Your task to perform on an android device: turn on data saver in the chrome app Image 0: 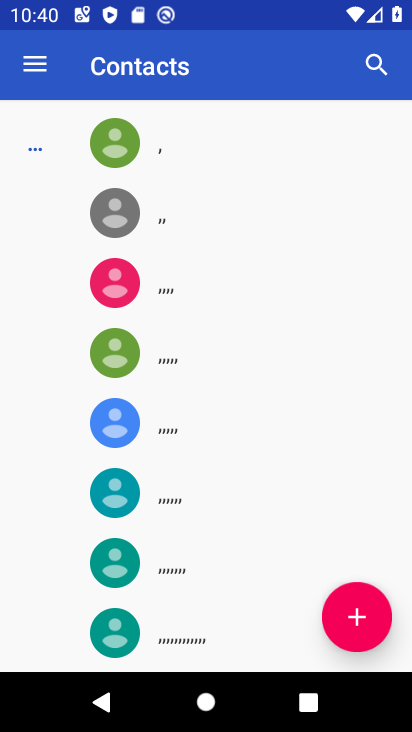
Step 0: press home button
Your task to perform on an android device: turn on data saver in the chrome app Image 1: 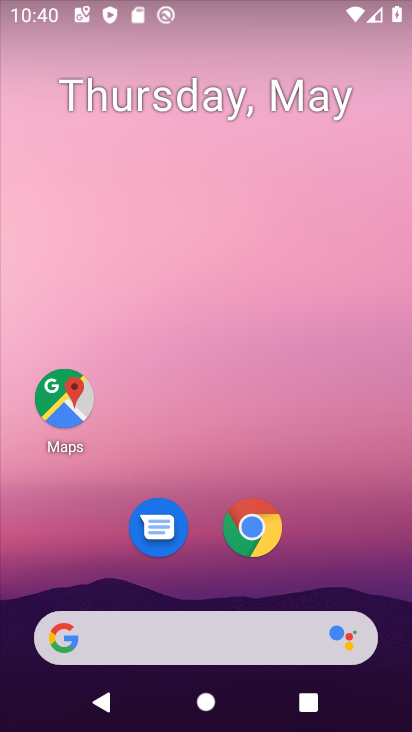
Step 1: click (253, 528)
Your task to perform on an android device: turn on data saver in the chrome app Image 2: 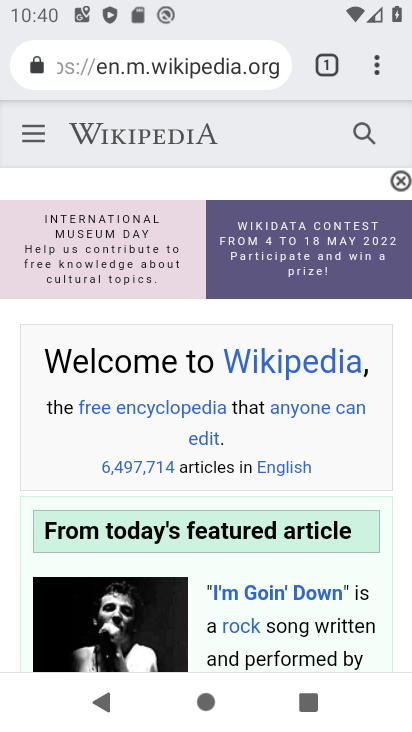
Step 2: click (371, 62)
Your task to perform on an android device: turn on data saver in the chrome app Image 3: 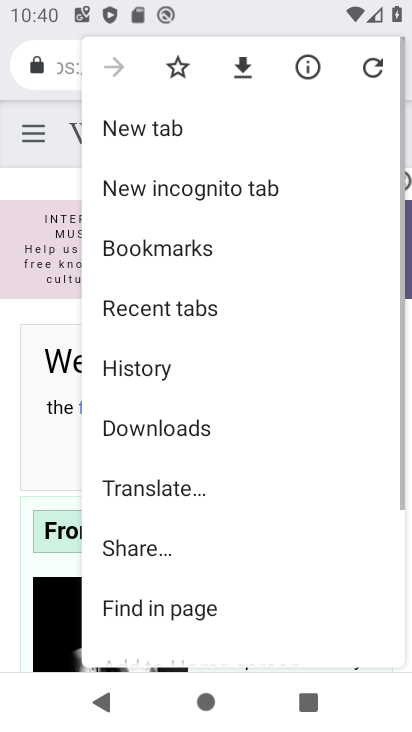
Step 3: drag from (224, 586) to (327, 175)
Your task to perform on an android device: turn on data saver in the chrome app Image 4: 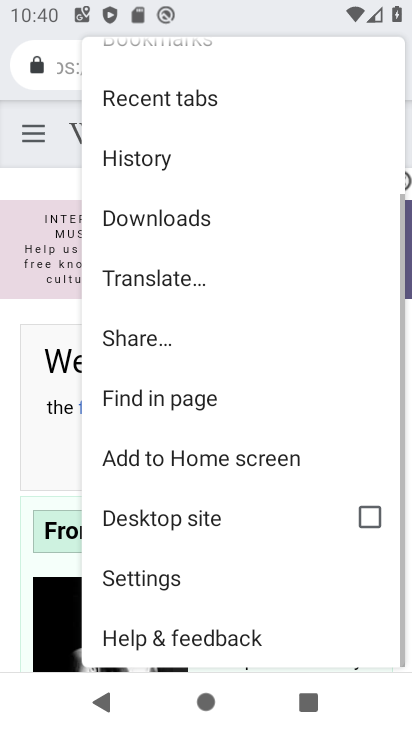
Step 4: click (149, 572)
Your task to perform on an android device: turn on data saver in the chrome app Image 5: 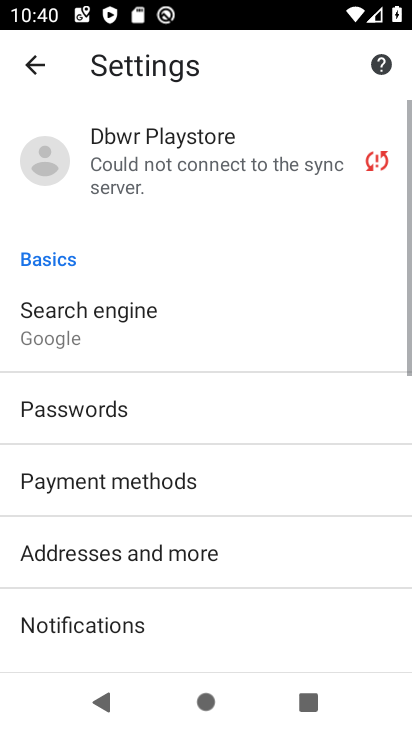
Step 5: drag from (166, 580) to (293, 96)
Your task to perform on an android device: turn on data saver in the chrome app Image 6: 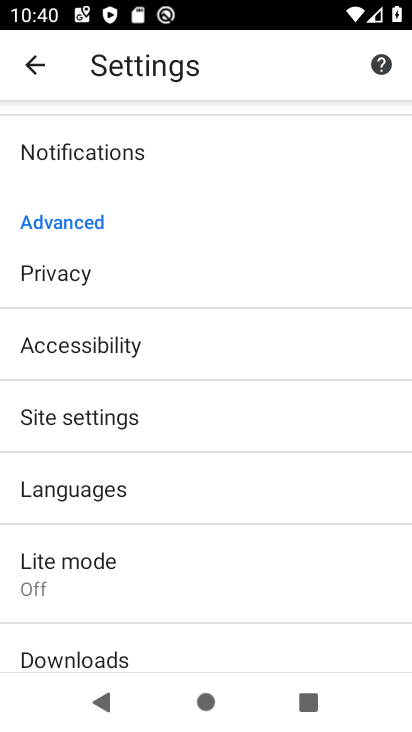
Step 6: click (131, 578)
Your task to perform on an android device: turn on data saver in the chrome app Image 7: 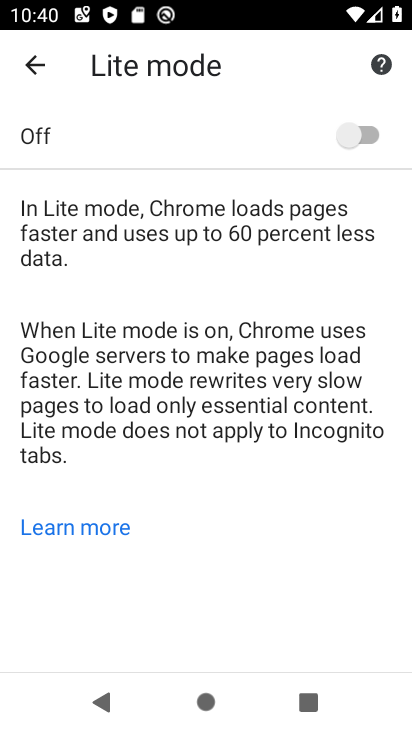
Step 7: click (343, 132)
Your task to perform on an android device: turn on data saver in the chrome app Image 8: 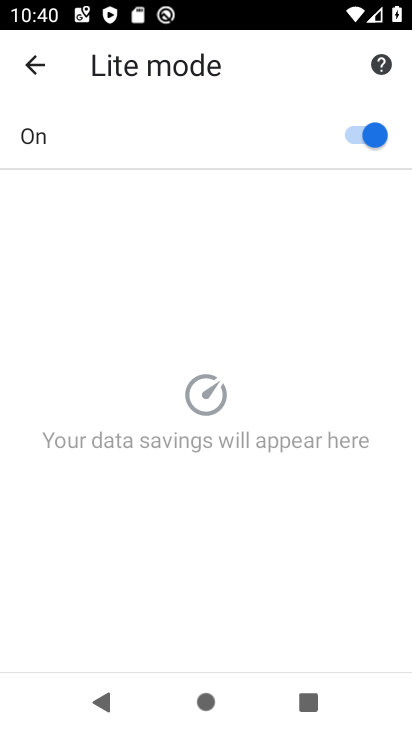
Step 8: task complete